Your task to perform on an android device: toggle location history Image 0: 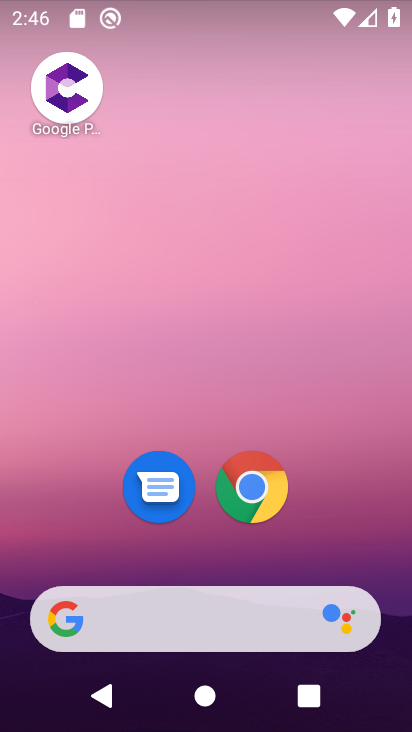
Step 0: drag from (119, 614) to (29, 280)
Your task to perform on an android device: toggle location history Image 1: 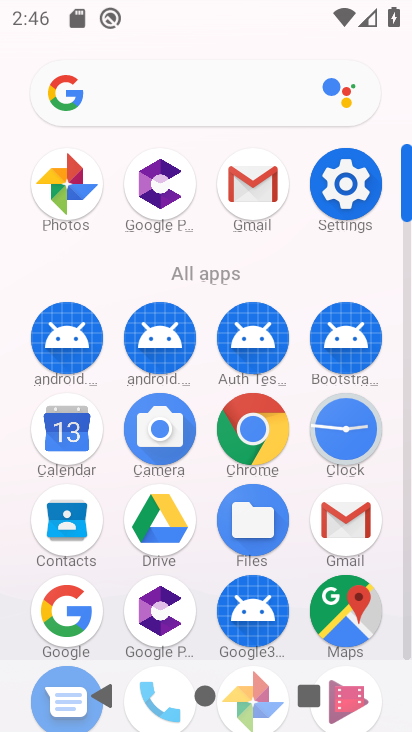
Step 1: click (339, 211)
Your task to perform on an android device: toggle location history Image 2: 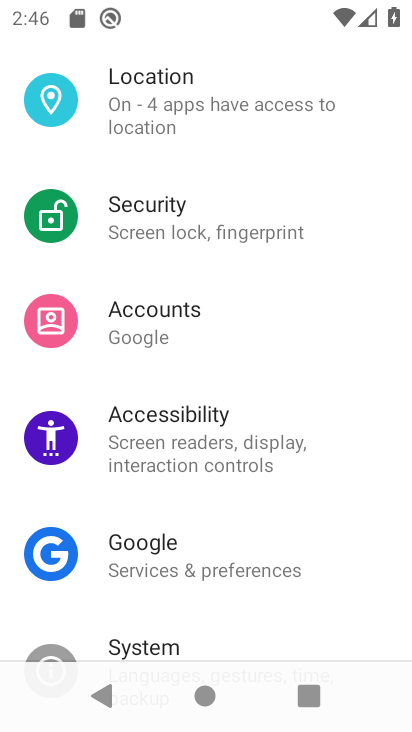
Step 2: click (128, 111)
Your task to perform on an android device: toggle location history Image 3: 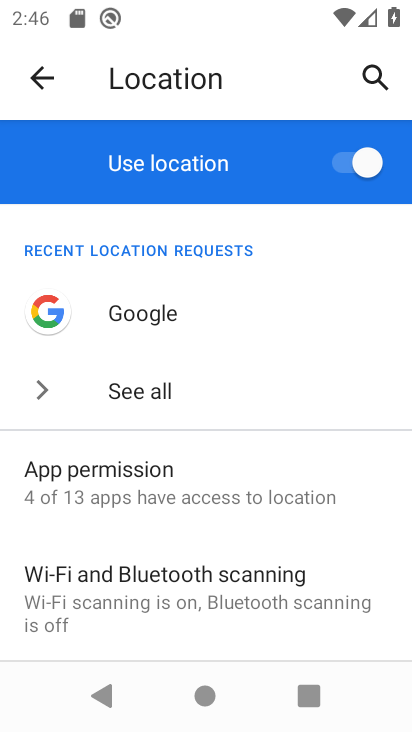
Step 3: drag from (136, 566) to (97, 140)
Your task to perform on an android device: toggle location history Image 4: 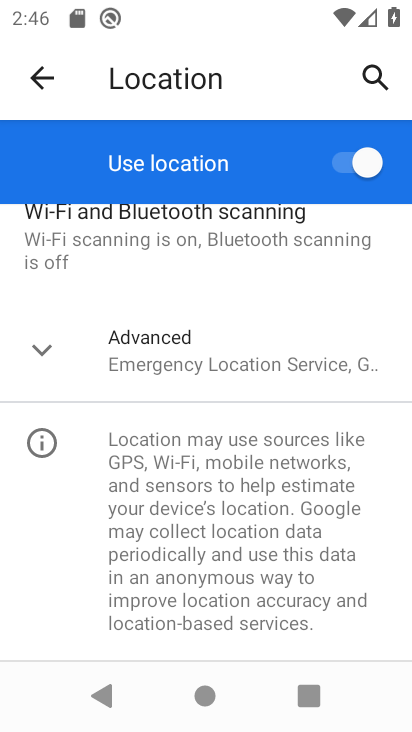
Step 4: click (130, 373)
Your task to perform on an android device: toggle location history Image 5: 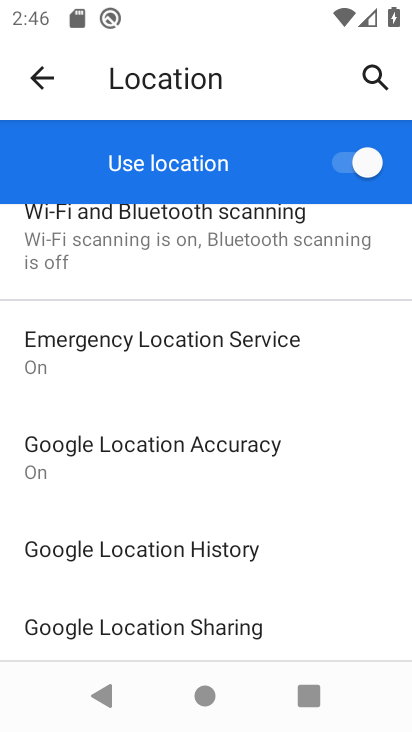
Step 5: click (238, 533)
Your task to perform on an android device: toggle location history Image 6: 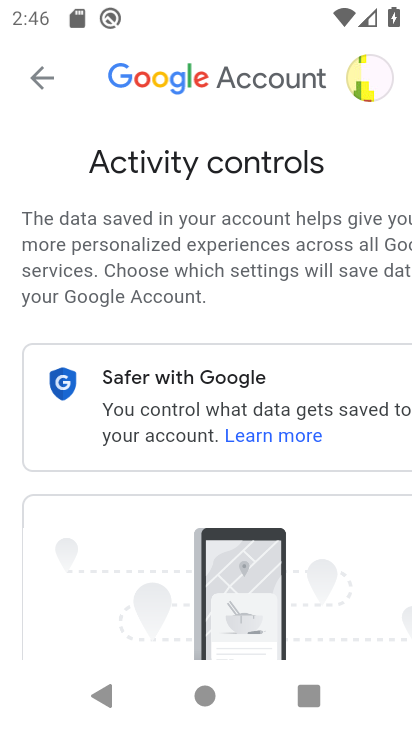
Step 6: drag from (321, 498) to (59, 31)
Your task to perform on an android device: toggle location history Image 7: 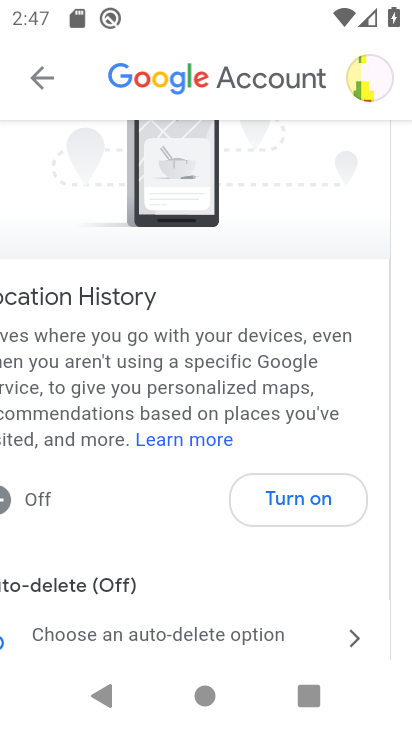
Step 7: click (292, 493)
Your task to perform on an android device: toggle location history Image 8: 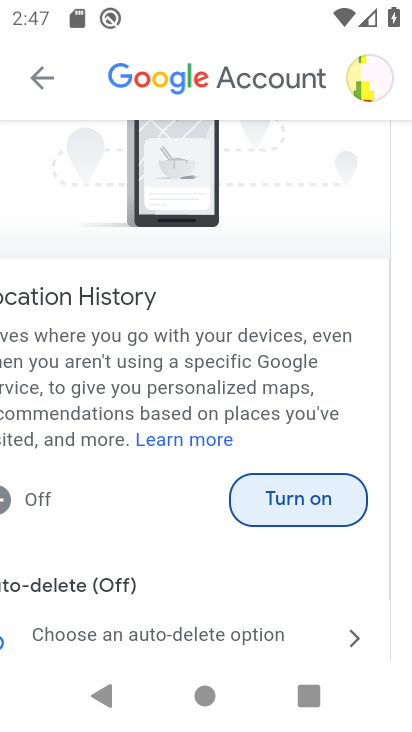
Step 8: click (294, 504)
Your task to perform on an android device: toggle location history Image 9: 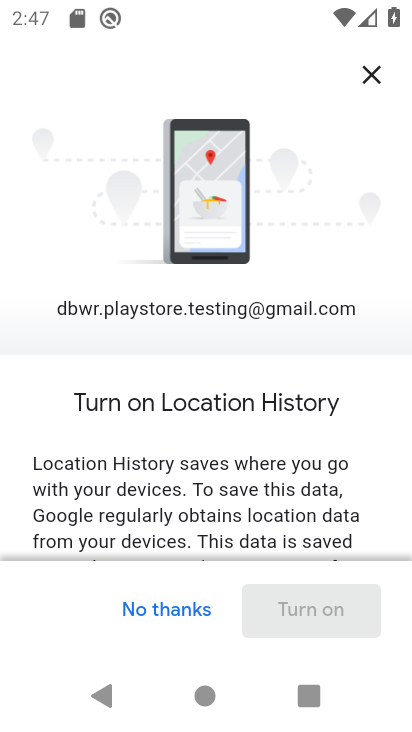
Step 9: drag from (294, 504) to (68, 7)
Your task to perform on an android device: toggle location history Image 10: 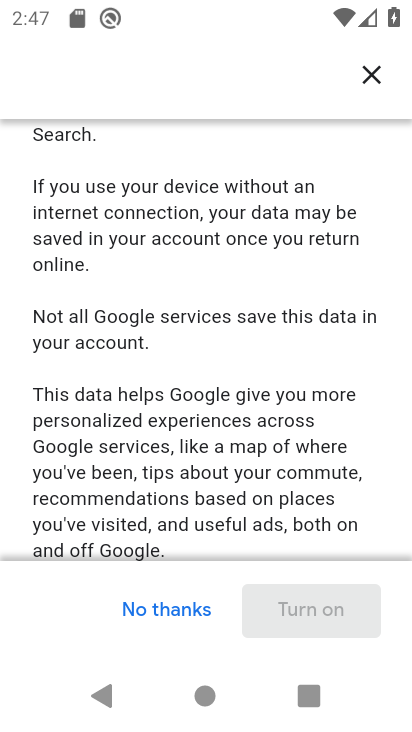
Step 10: drag from (256, 480) to (194, 7)
Your task to perform on an android device: toggle location history Image 11: 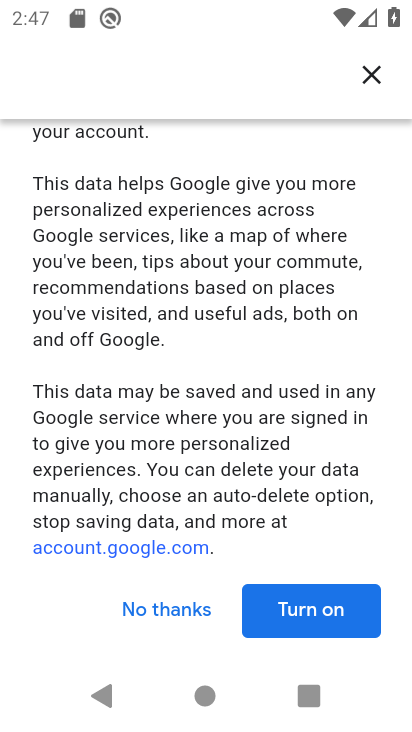
Step 11: click (283, 622)
Your task to perform on an android device: toggle location history Image 12: 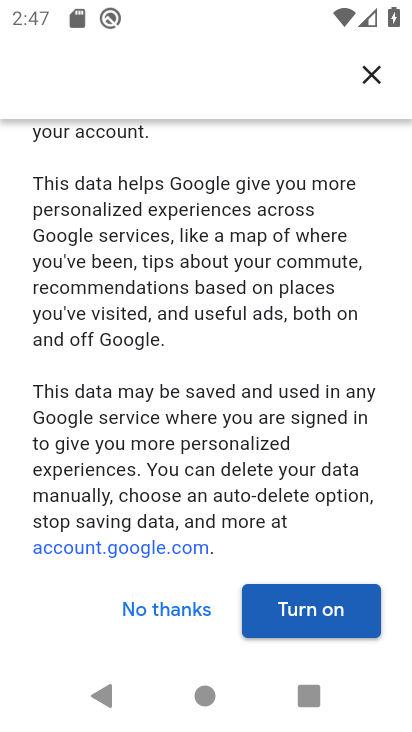
Step 12: click (298, 613)
Your task to perform on an android device: toggle location history Image 13: 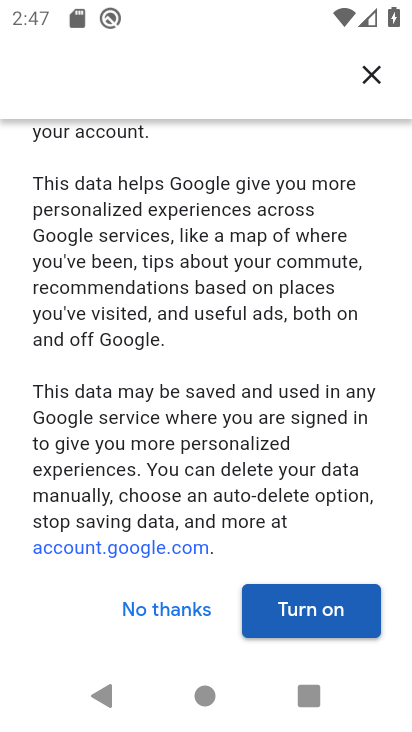
Step 13: click (298, 613)
Your task to perform on an android device: toggle location history Image 14: 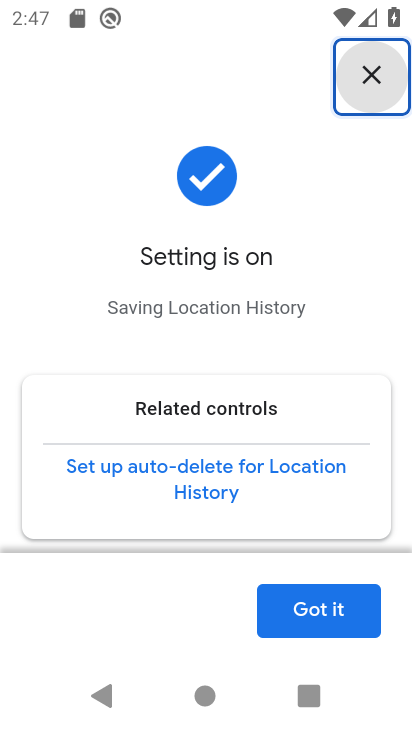
Step 14: click (359, 601)
Your task to perform on an android device: toggle location history Image 15: 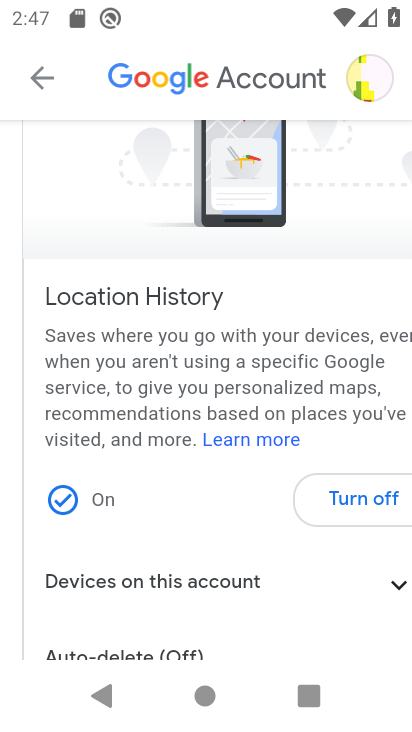
Step 15: task complete